Your task to perform on an android device: Go to Google maps Image 0: 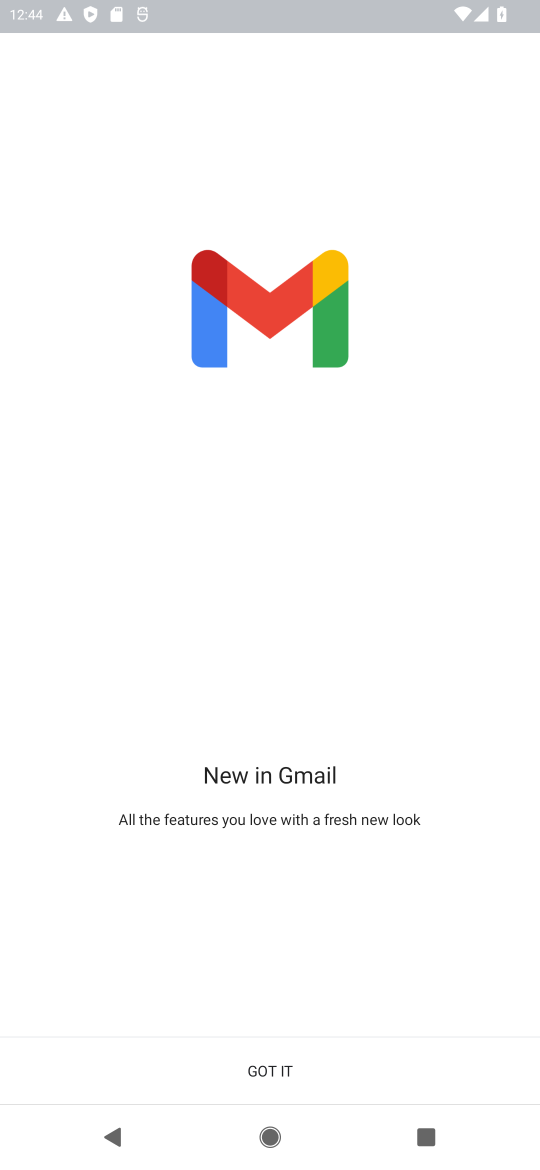
Step 0: press home button
Your task to perform on an android device: Go to Google maps Image 1: 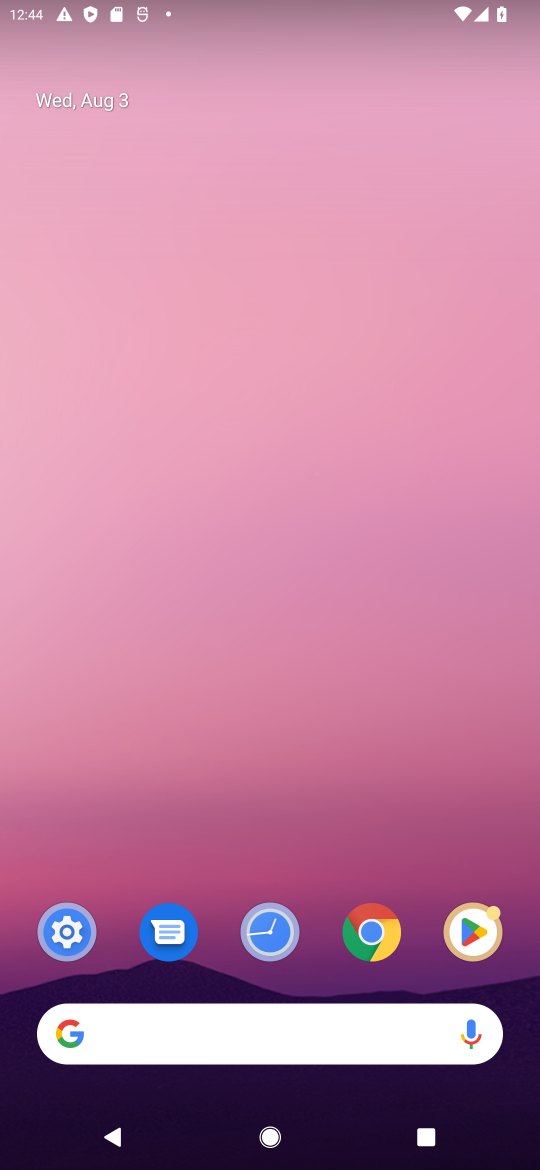
Step 1: drag from (280, 588) to (311, 74)
Your task to perform on an android device: Go to Google maps Image 2: 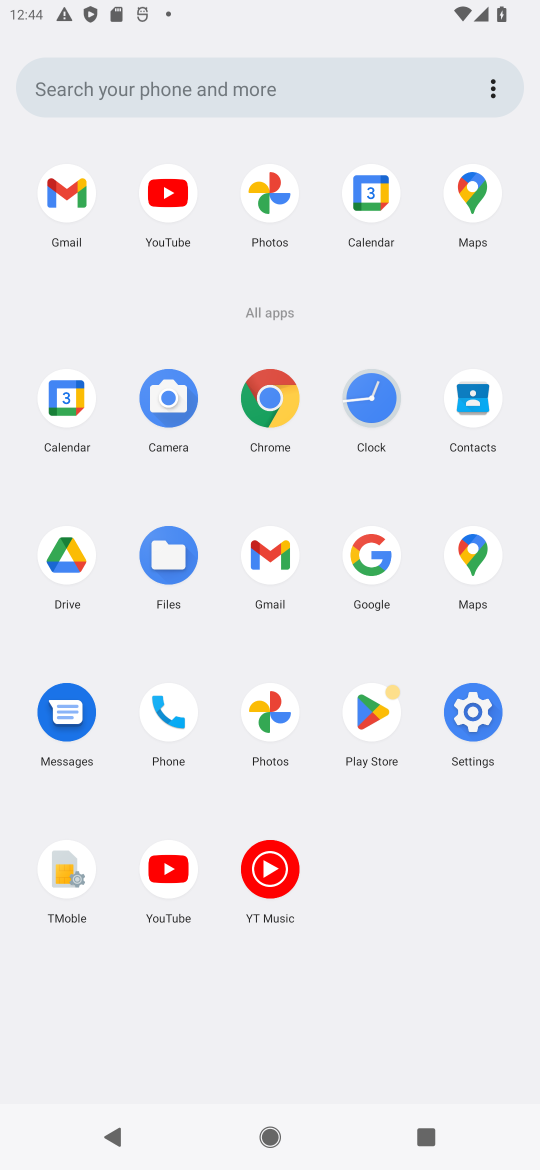
Step 2: click (480, 557)
Your task to perform on an android device: Go to Google maps Image 3: 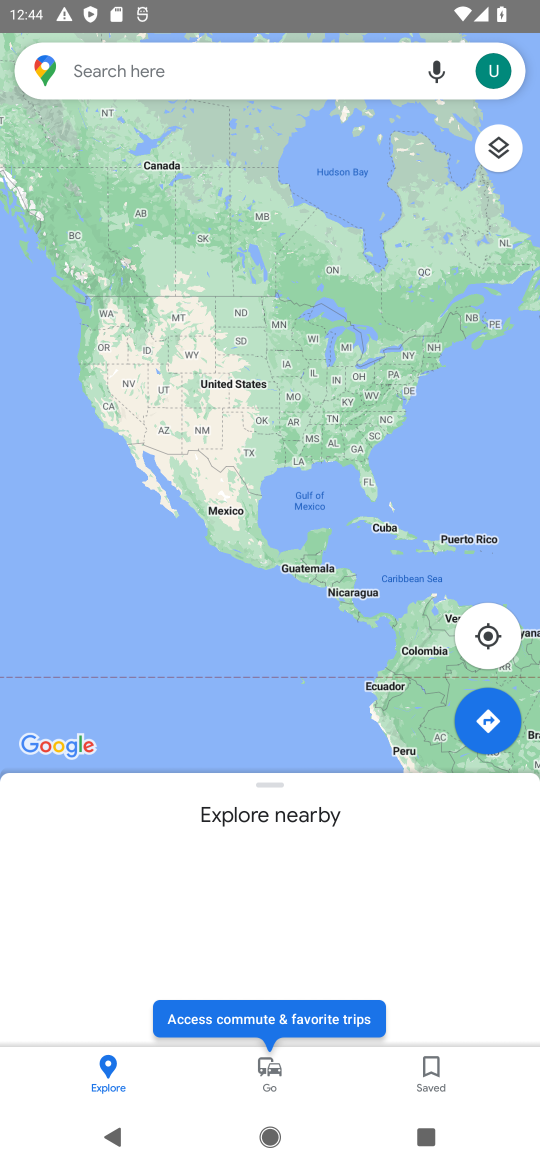
Step 3: task complete